Your task to perform on an android device: Open Google Image 0: 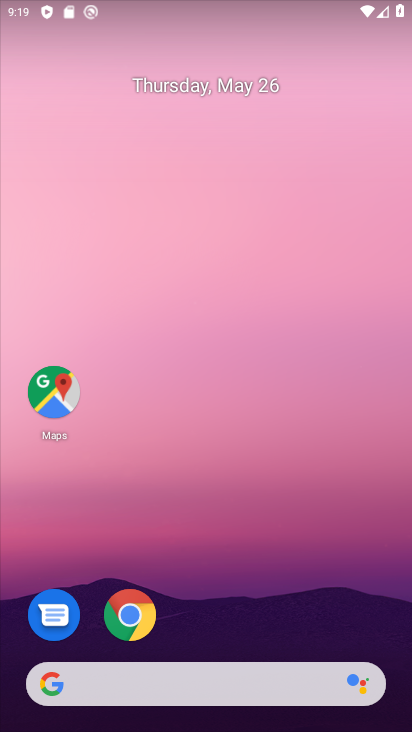
Step 0: drag from (128, 730) to (191, 176)
Your task to perform on an android device: Open Google Image 1: 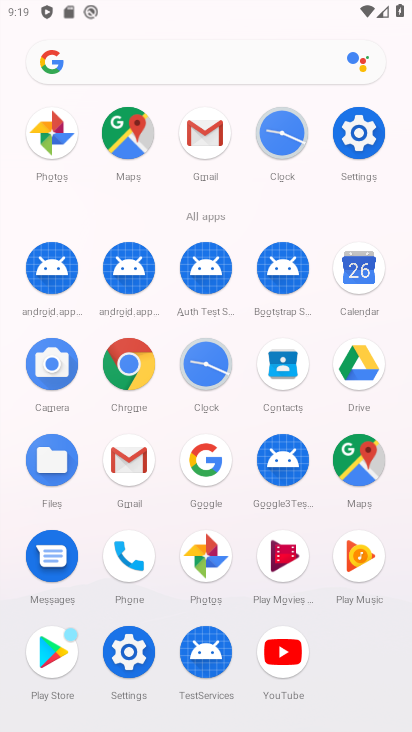
Step 1: click (207, 469)
Your task to perform on an android device: Open Google Image 2: 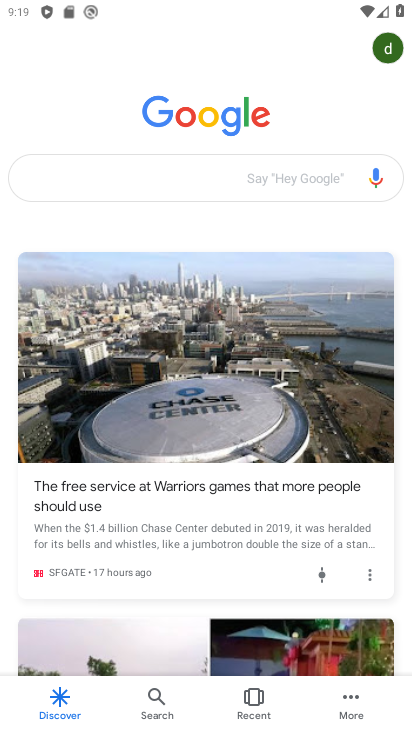
Step 2: task complete